Your task to perform on an android device: Go to Google maps Image 0: 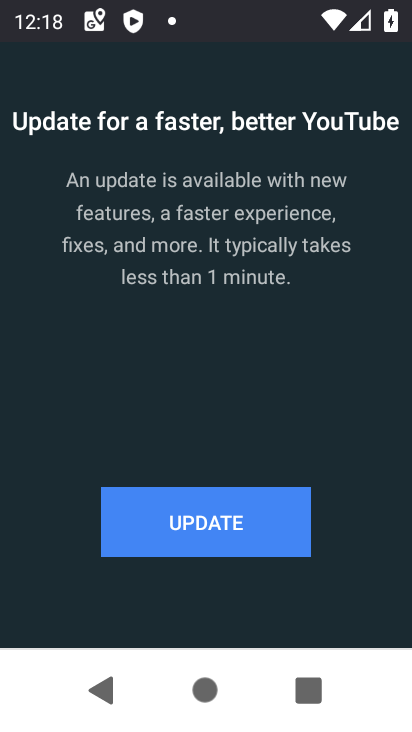
Step 0: press home button
Your task to perform on an android device: Go to Google maps Image 1: 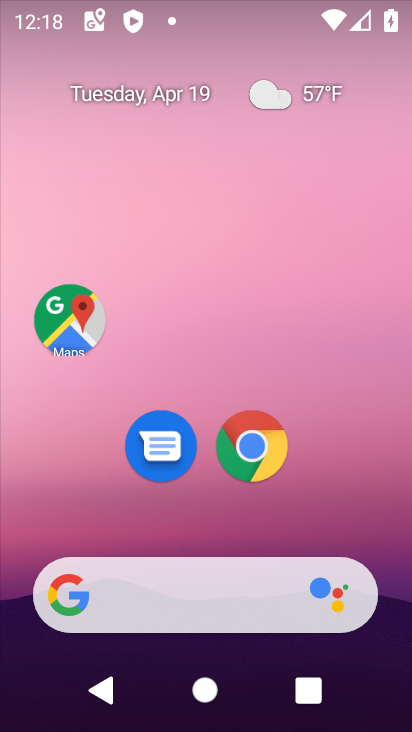
Step 1: click (68, 320)
Your task to perform on an android device: Go to Google maps Image 2: 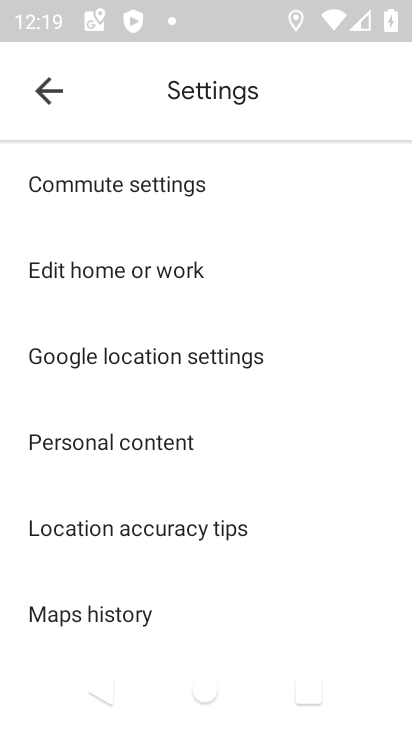
Step 2: click (51, 91)
Your task to perform on an android device: Go to Google maps Image 3: 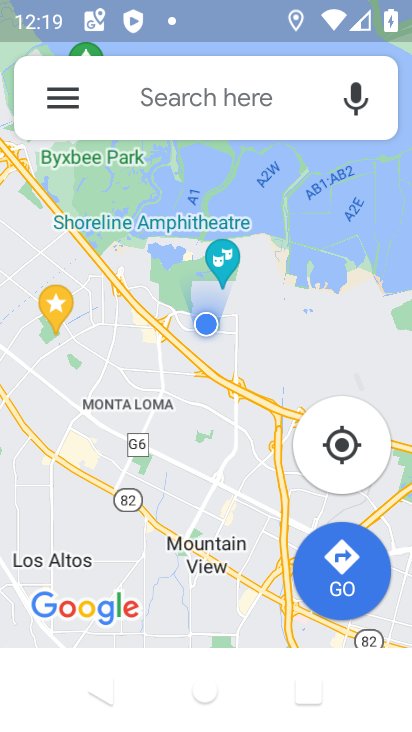
Step 3: task complete